Your task to perform on an android device: Search for Italian restaurants on Maps Image 0: 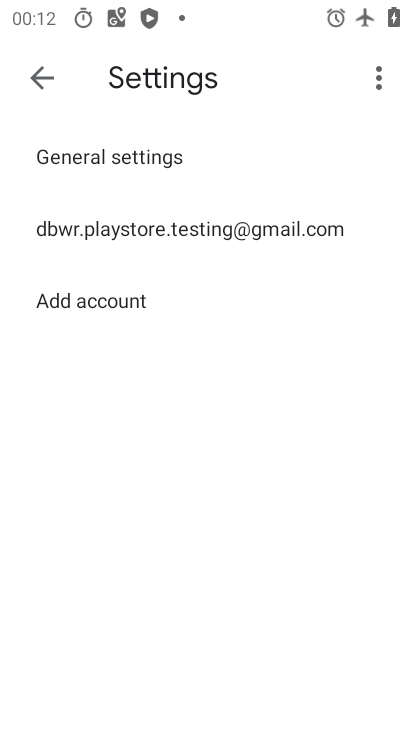
Step 0: press home button
Your task to perform on an android device: Search for Italian restaurants on Maps Image 1: 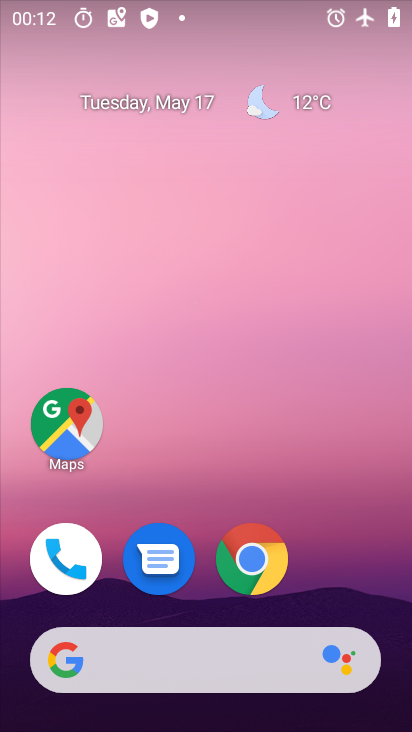
Step 1: click (61, 418)
Your task to perform on an android device: Search for Italian restaurants on Maps Image 2: 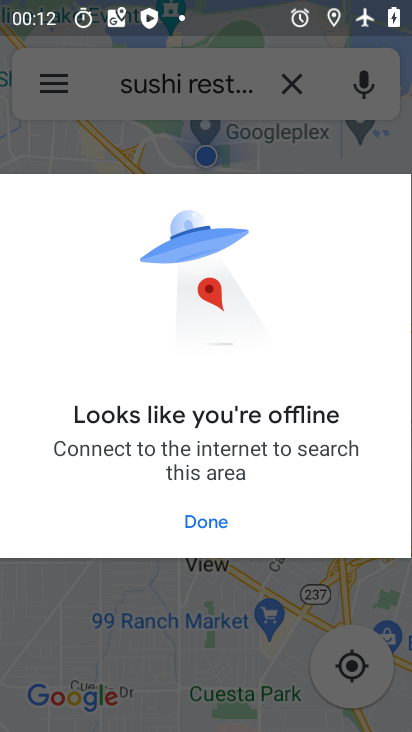
Step 2: click (207, 527)
Your task to perform on an android device: Search for Italian restaurants on Maps Image 3: 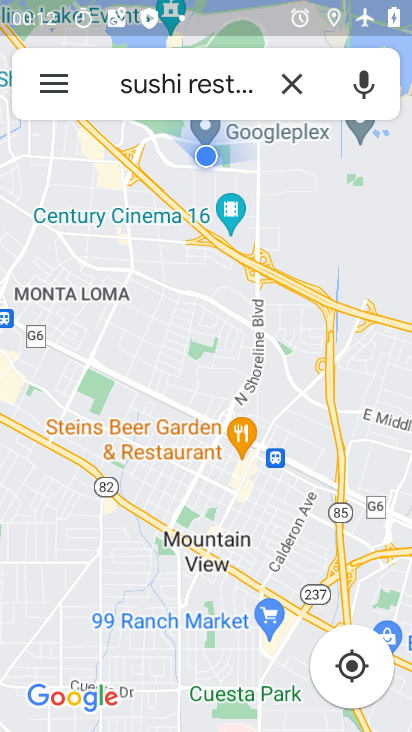
Step 3: click (167, 80)
Your task to perform on an android device: Search for Italian restaurants on Maps Image 4: 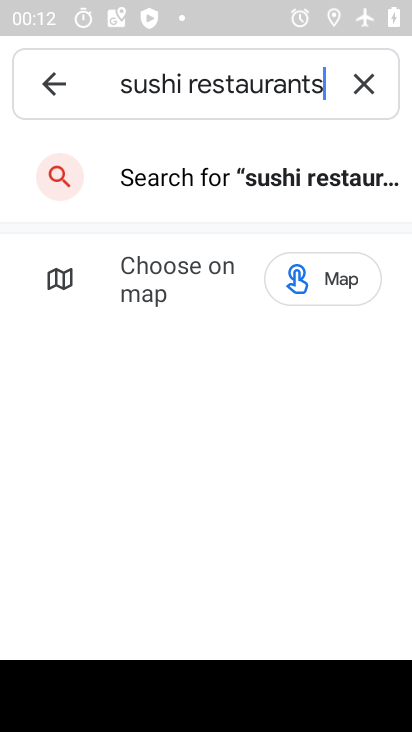
Step 4: click (351, 82)
Your task to perform on an android device: Search for Italian restaurants on Maps Image 5: 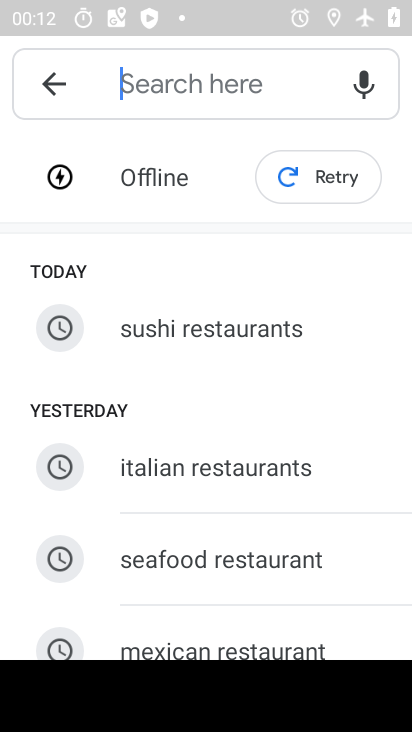
Step 5: click (219, 473)
Your task to perform on an android device: Search for Italian restaurants on Maps Image 6: 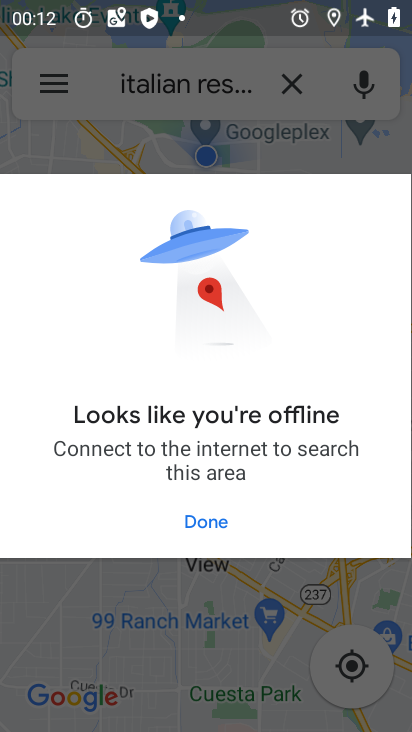
Step 6: task complete